Your task to perform on an android device: delete the emails in spam in the gmail app Image 0: 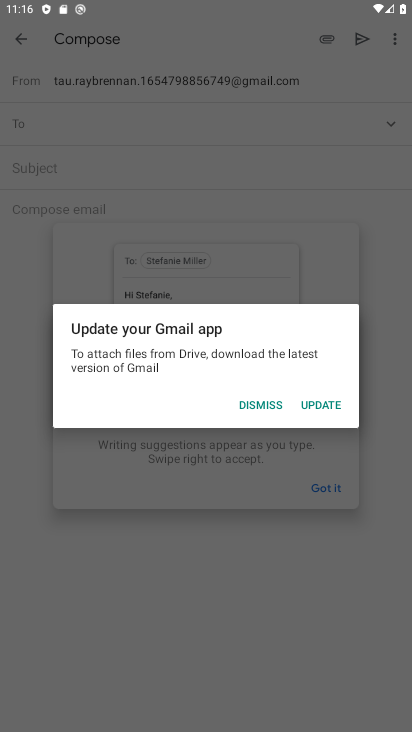
Step 0: press home button
Your task to perform on an android device: delete the emails in spam in the gmail app Image 1: 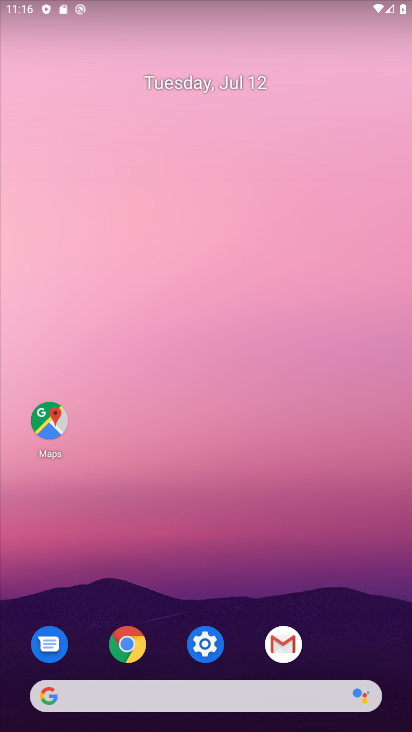
Step 1: click (292, 646)
Your task to perform on an android device: delete the emails in spam in the gmail app Image 2: 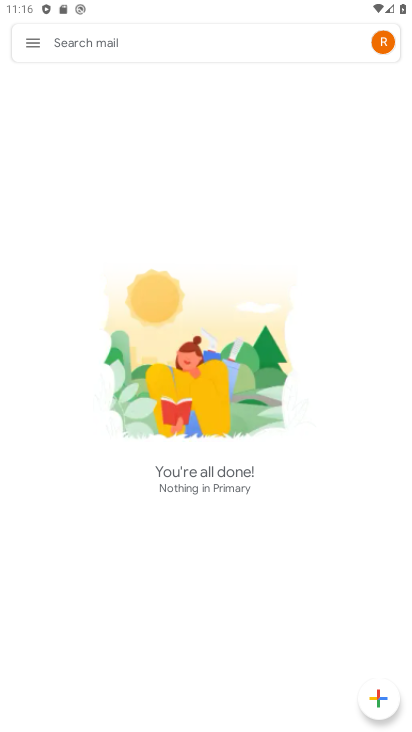
Step 2: click (24, 36)
Your task to perform on an android device: delete the emails in spam in the gmail app Image 3: 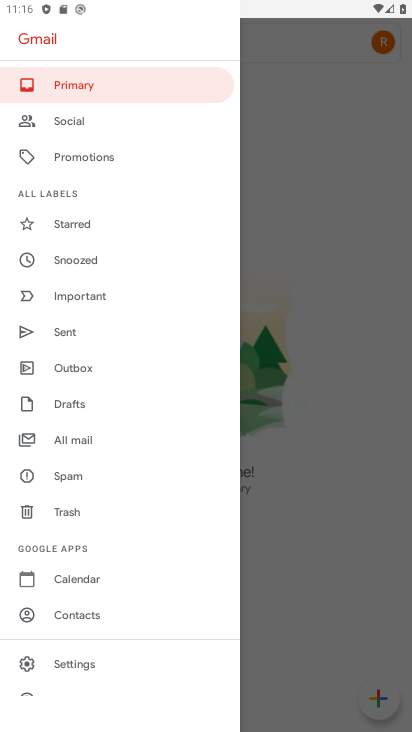
Step 3: click (70, 484)
Your task to perform on an android device: delete the emails in spam in the gmail app Image 4: 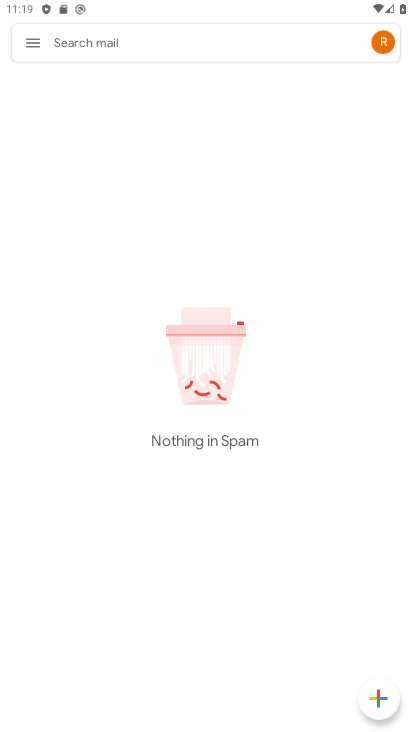
Step 4: task complete